Your task to perform on an android device: Clear all items from cart on ebay.com. Add "razer blade" to the cart on ebay.com Image 0: 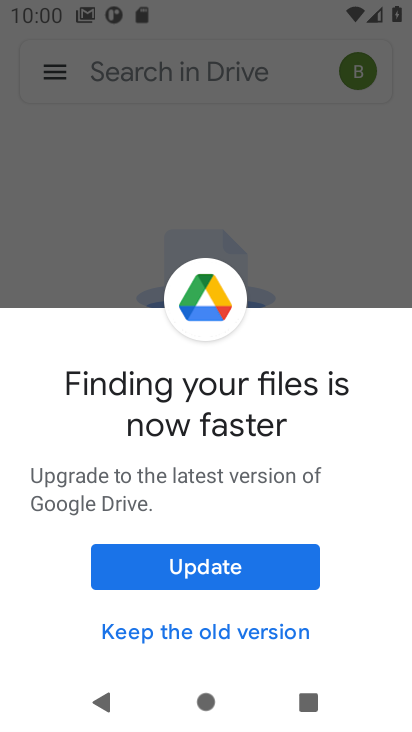
Step 0: drag from (285, 573) to (317, 72)
Your task to perform on an android device: Clear all items from cart on ebay.com. Add "razer blade" to the cart on ebay.com Image 1: 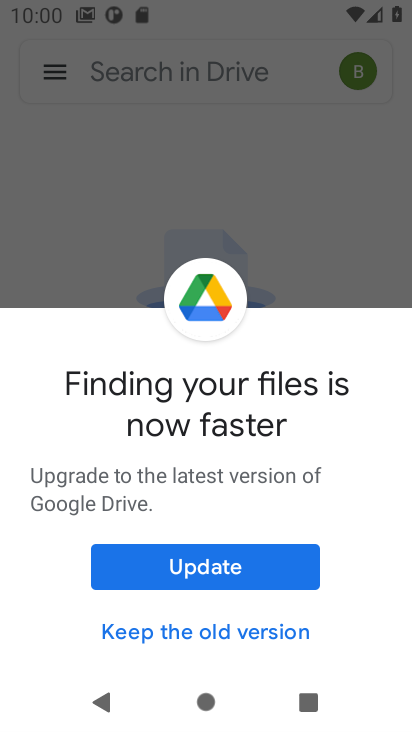
Step 1: press home button
Your task to perform on an android device: Clear all items from cart on ebay.com. Add "razer blade" to the cart on ebay.com Image 2: 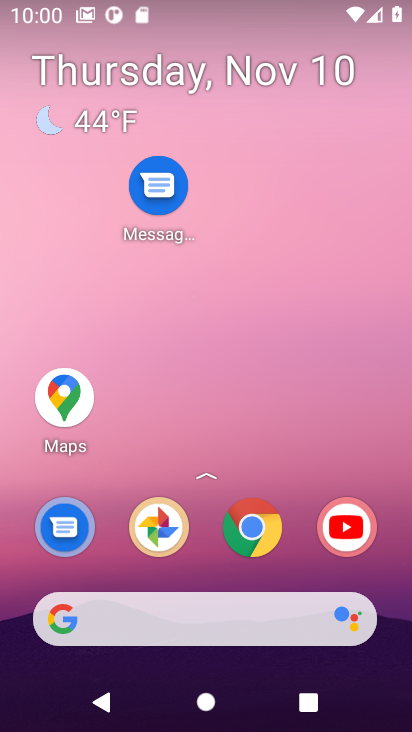
Step 2: drag from (206, 574) to (164, 0)
Your task to perform on an android device: Clear all items from cart on ebay.com. Add "razer blade" to the cart on ebay.com Image 3: 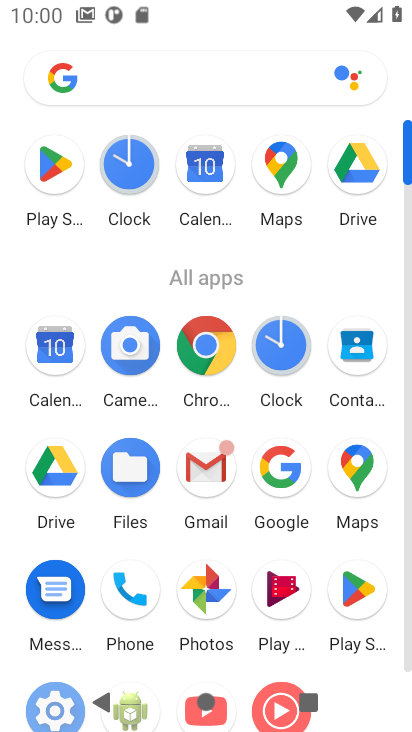
Step 3: click (202, 337)
Your task to perform on an android device: Clear all items from cart on ebay.com. Add "razer blade" to the cart on ebay.com Image 4: 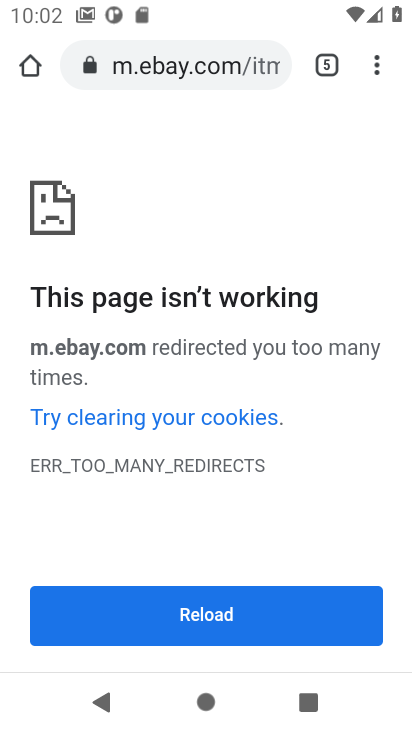
Step 4: task complete